Your task to perform on an android device: toggle notification dots Image 0: 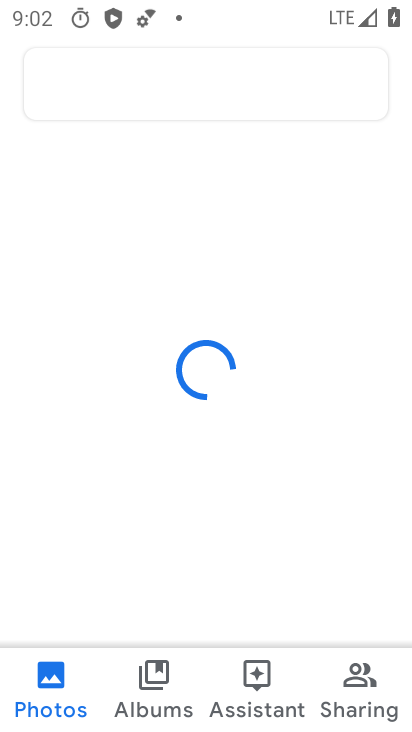
Step 0: press home button
Your task to perform on an android device: toggle notification dots Image 1: 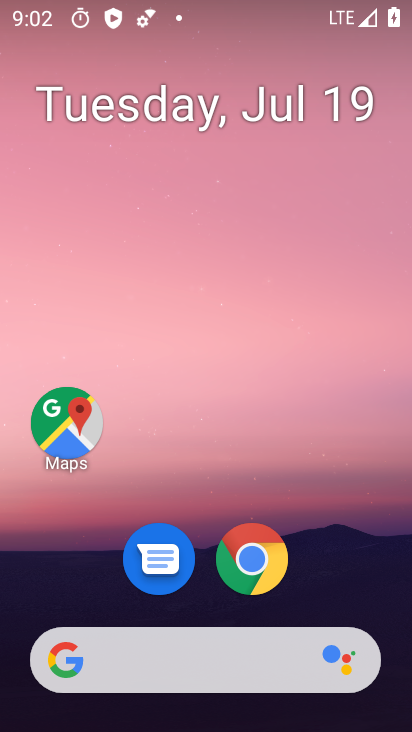
Step 1: drag from (364, 573) to (293, 165)
Your task to perform on an android device: toggle notification dots Image 2: 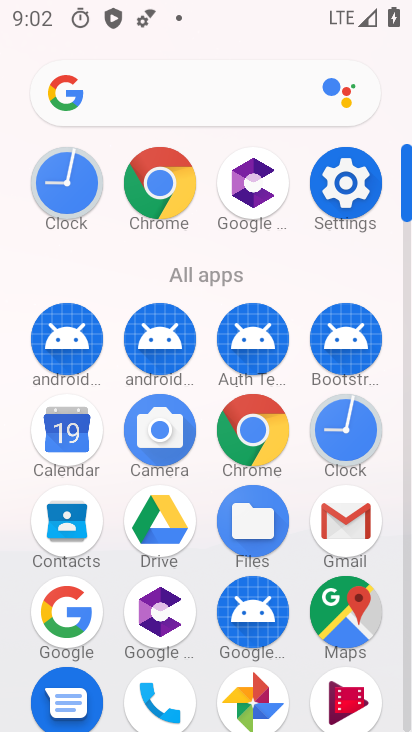
Step 2: click (366, 156)
Your task to perform on an android device: toggle notification dots Image 3: 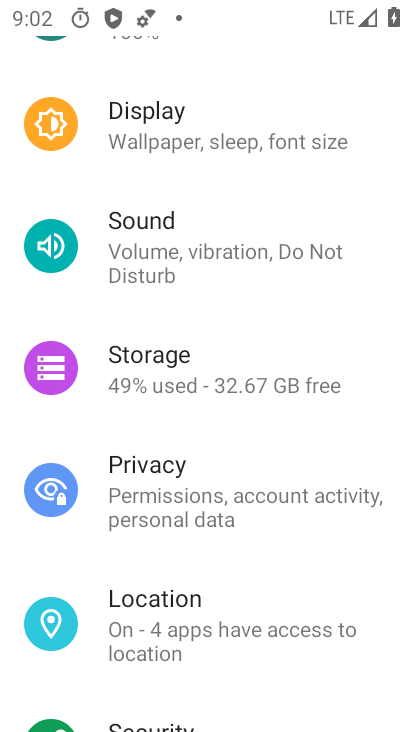
Step 3: drag from (249, 104) to (307, 639)
Your task to perform on an android device: toggle notification dots Image 4: 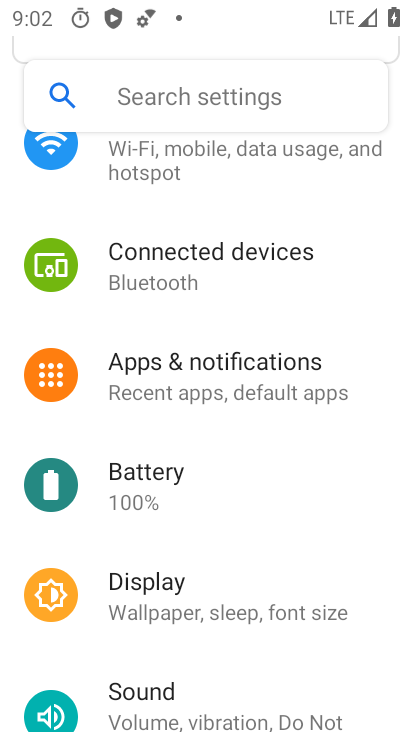
Step 4: click (219, 383)
Your task to perform on an android device: toggle notification dots Image 5: 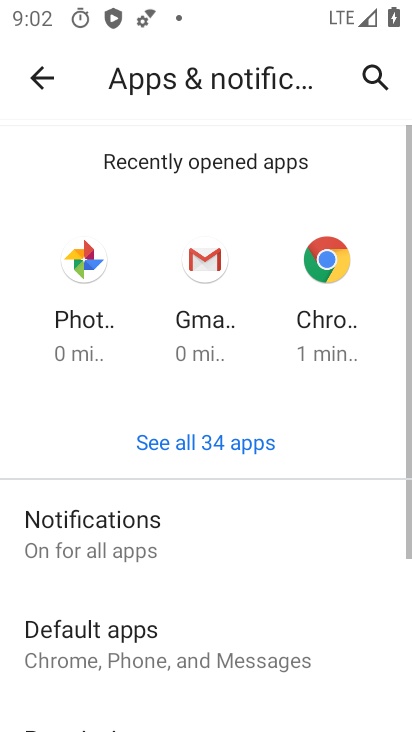
Step 5: drag from (258, 638) to (212, 382)
Your task to perform on an android device: toggle notification dots Image 6: 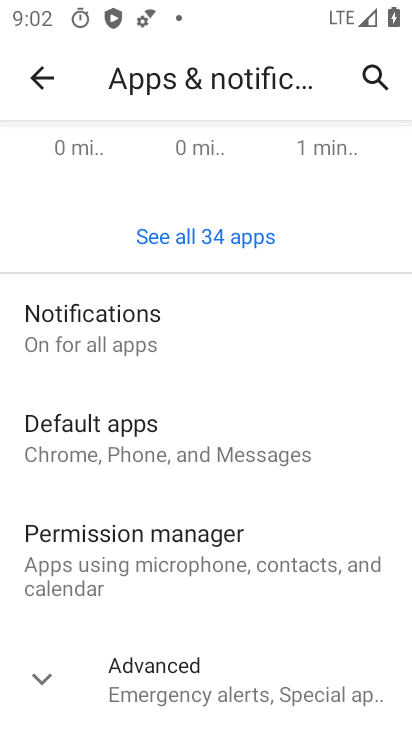
Step 6: click (200, 341)
Your task to perform on an android device: toggle notification dots Image 7: 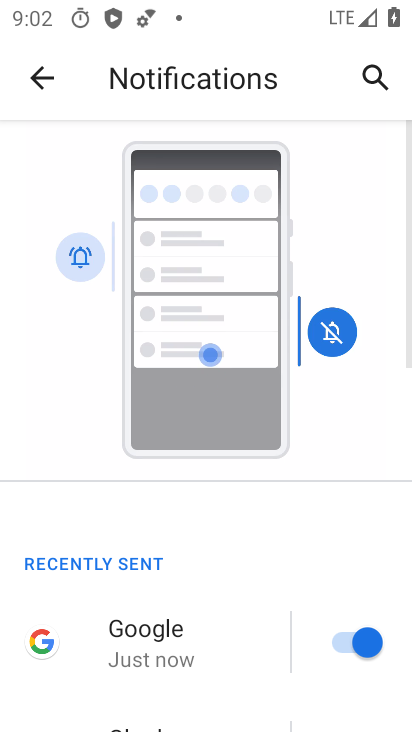
Step 7: drag from (225, 618) to (164, 256)
Your task to perform on an android device: toggle notification dots Image 8: 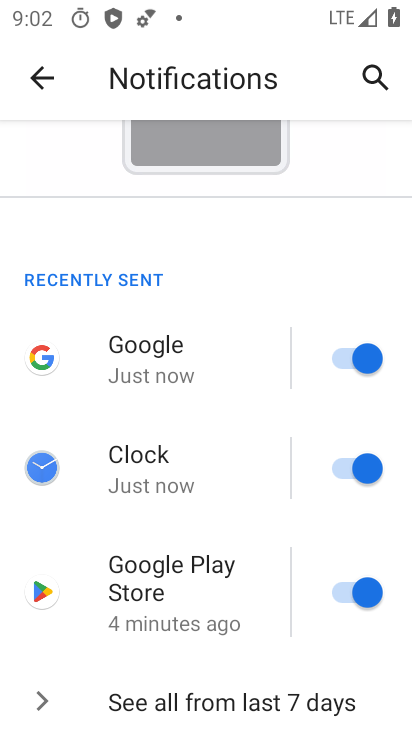
Step 8: drag from (249, 689) to (197, 255)
Your task to perform on an android device: toggle notification dots Image 9: 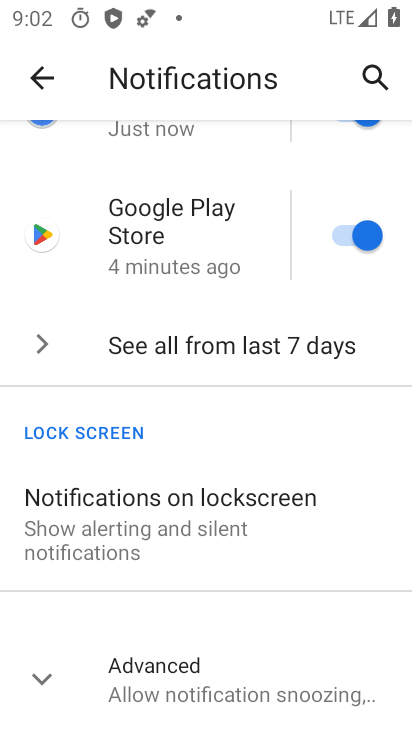
Step 9: drag from (246, 624) to (196, 362)
Your task to perform on an android device: toggle notification dots Image 10: 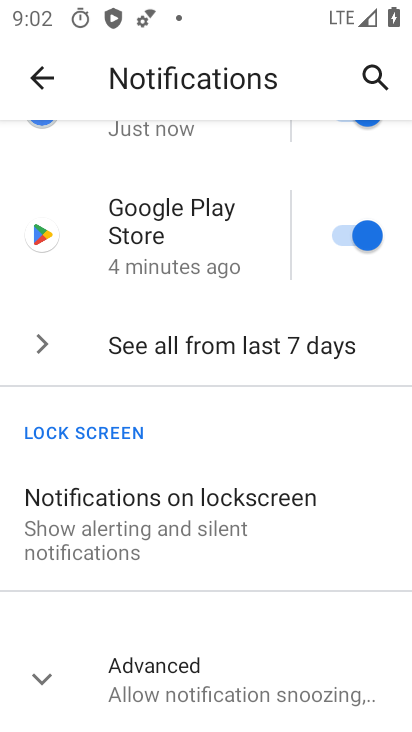
Step 10: click (227, 691)
Your task to perform on an android device: toggle notification dots Image 11: 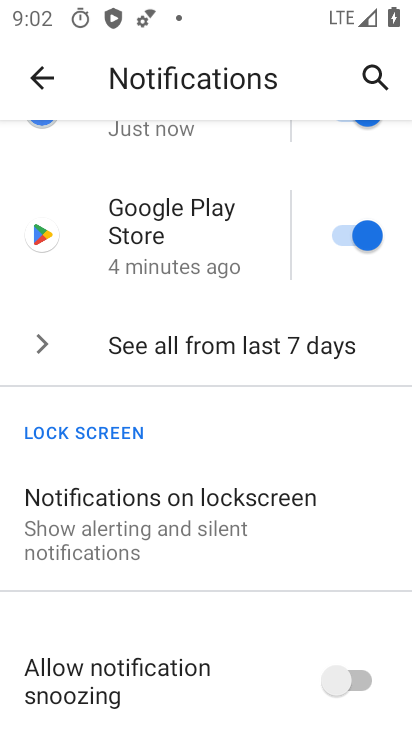
Step 11: drag from (243, 630) to (204, 301)
Your task to perform on an android device: toggle notification dots Image 12: 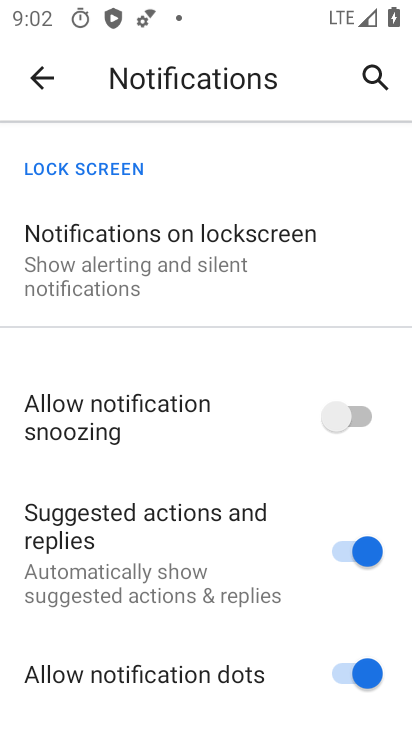
Step 12: click (347, 677)
Your task to perform on an android device: toggle notification dots Image 13: 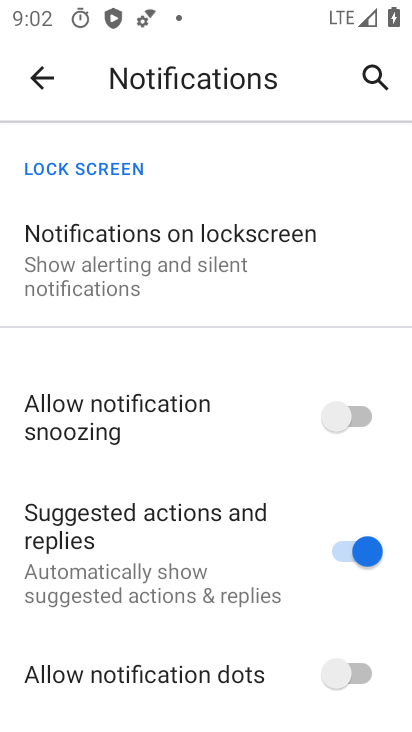
Step 13: task complete